Your task to perform on an android device: install app "The Home Depot" Image 0: 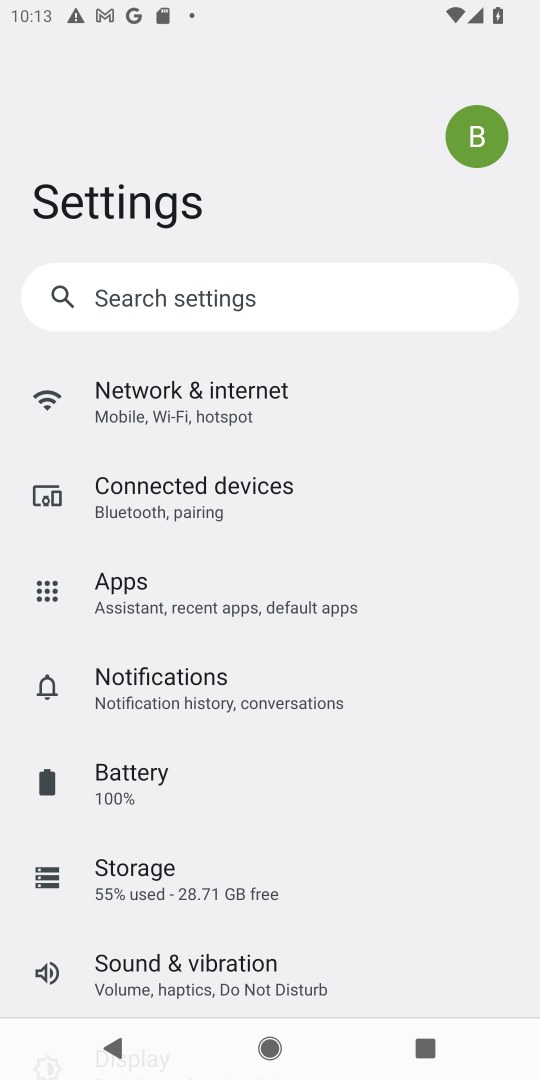
Step 0: press home button
Your task to perform on an android device: install app "The Home Depot" Image 1: 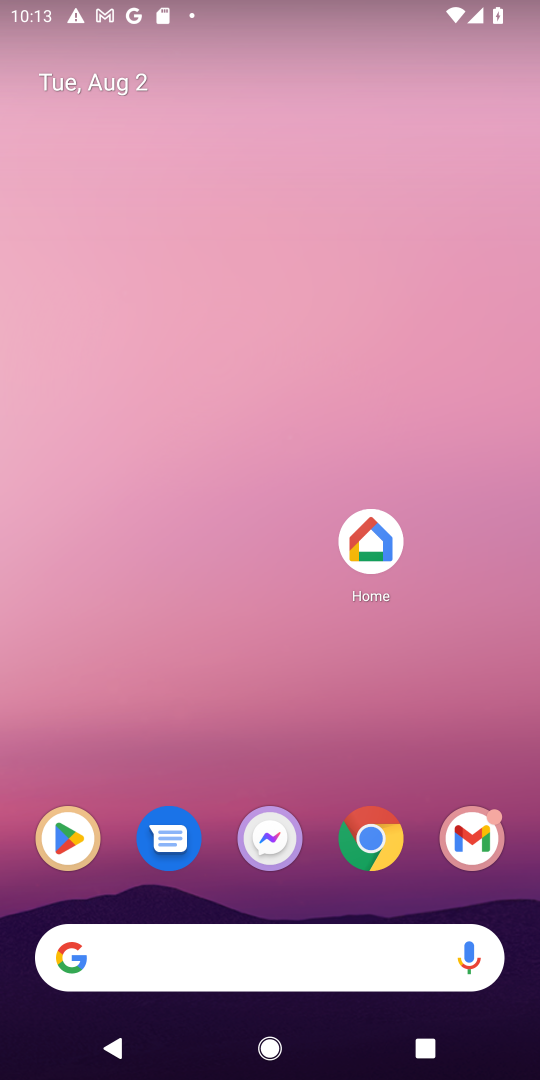
Step 1: drag from (282, 745) to (294, 78)
Your task to perform on an android device: install app "The Home Depot" Image 2: 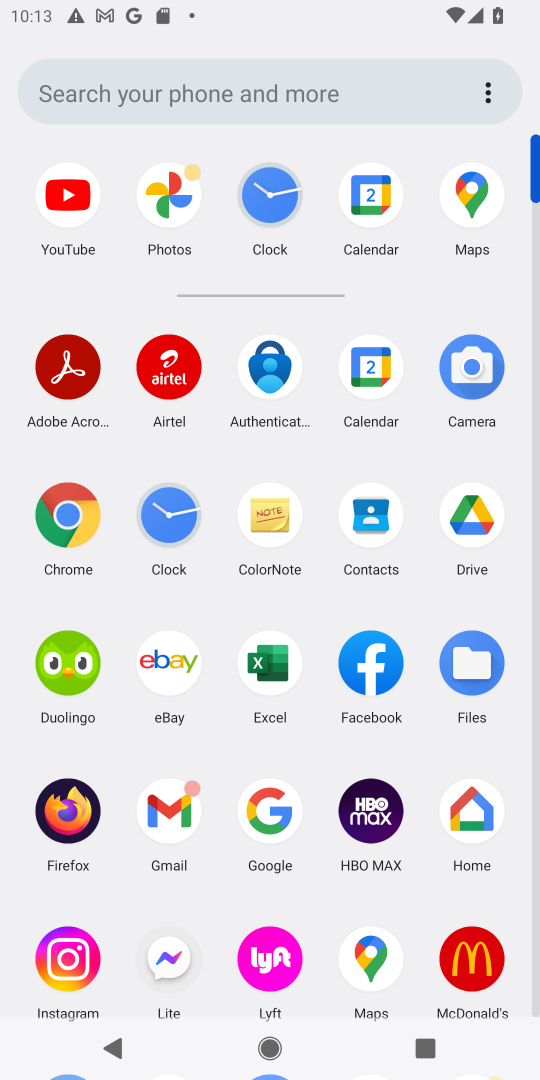
Step 2: drag from (417, 896) to (405, 435)
Your task to perform on an android device: install app "The Home Depot" Image 3: 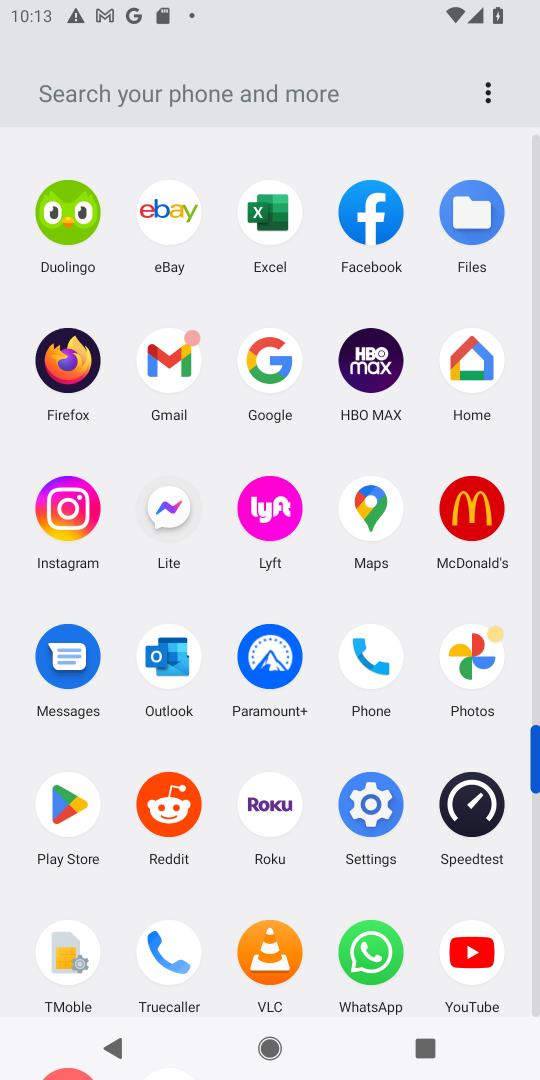
Step 3: click (48, 810)
Your task to perform on an android device: install app "The Home Depot" Image 4: 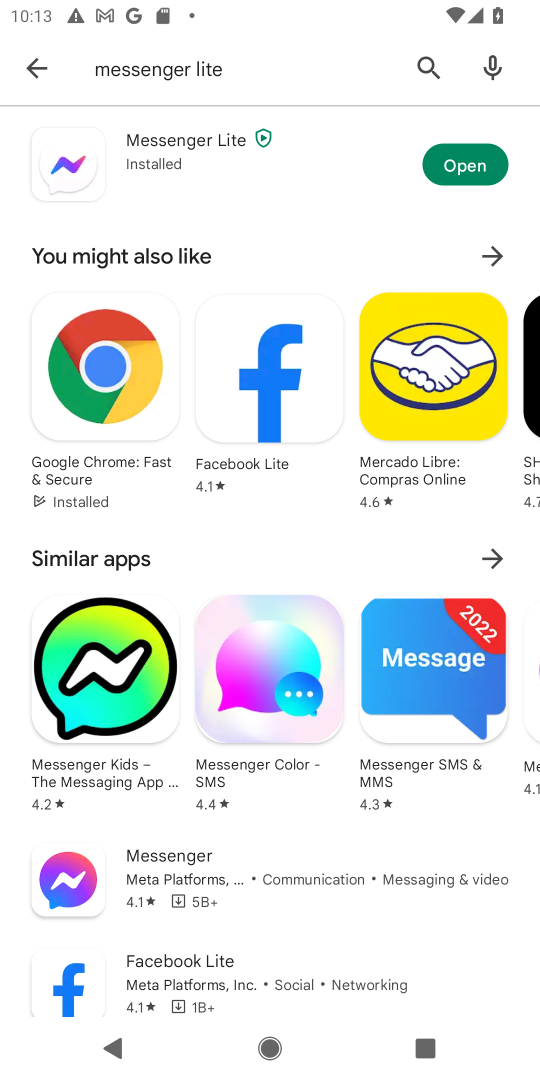
Step 4: click (431, 62)
Your task to perform on an android device: install app "The Home Depot" Image 5: 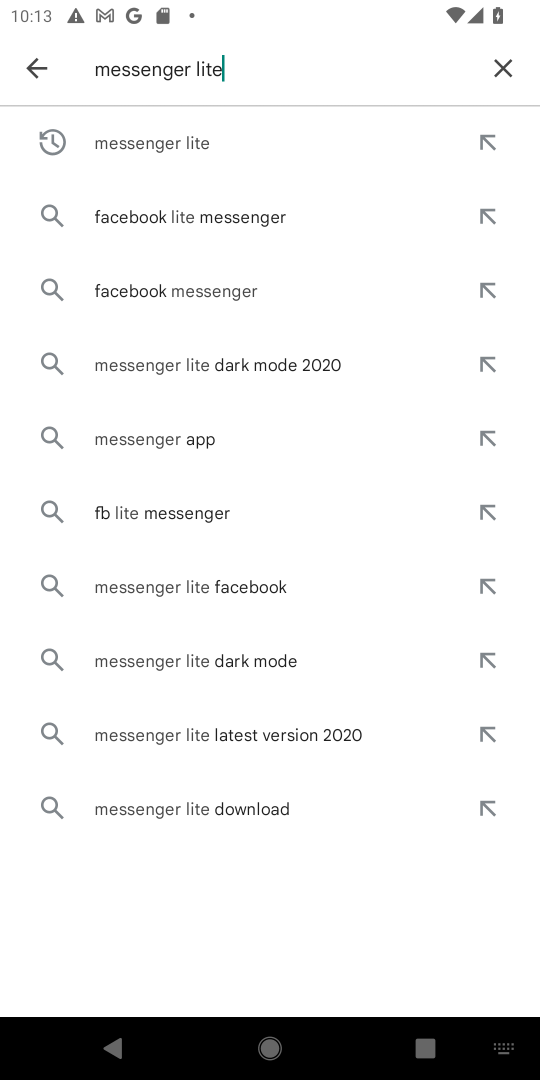
Step 5: click (498, 66)
Your task to perform on an android device: install app "The Home Depot" Image 6: 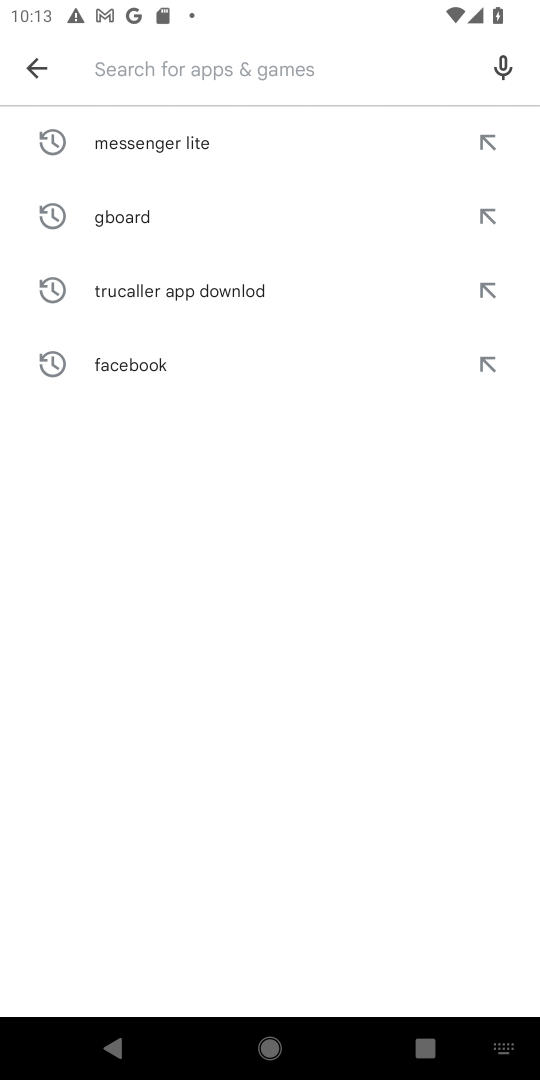
Step 6: click (373, 77)
Your task to perform on an android device: install app "The Home Depot" Image 7: 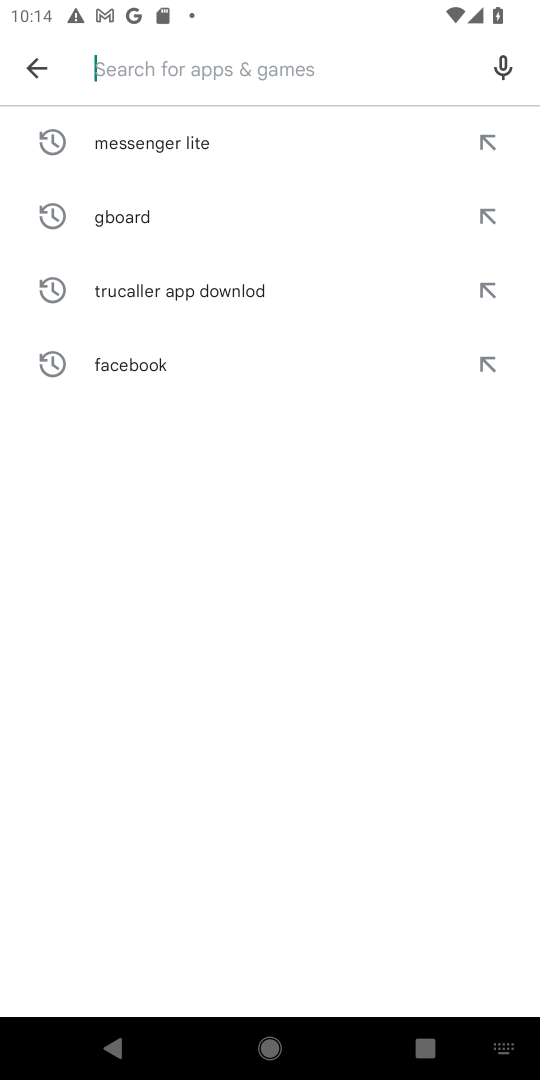
Step 7: type "the home depot"
Your task to perform on an android device: install app "The Home Depot" Image 8: 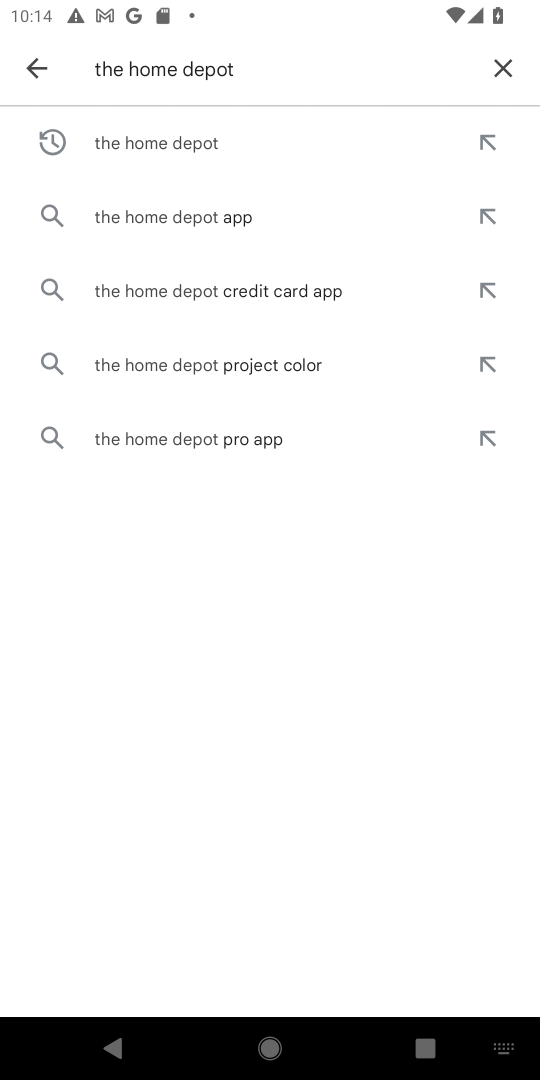
Step 8: click (259, 150)
Your task to perform on an android device: install app "The Home Depot" Image 9: 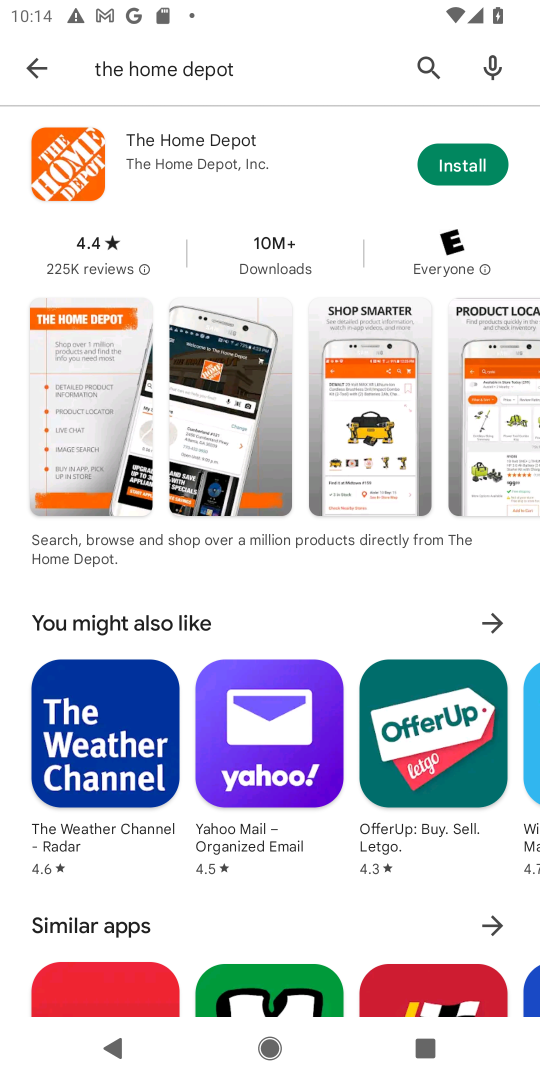
Step 9: click (482, 161)
Your task to perform on an android device: install app "The Home Depot" Image 10: 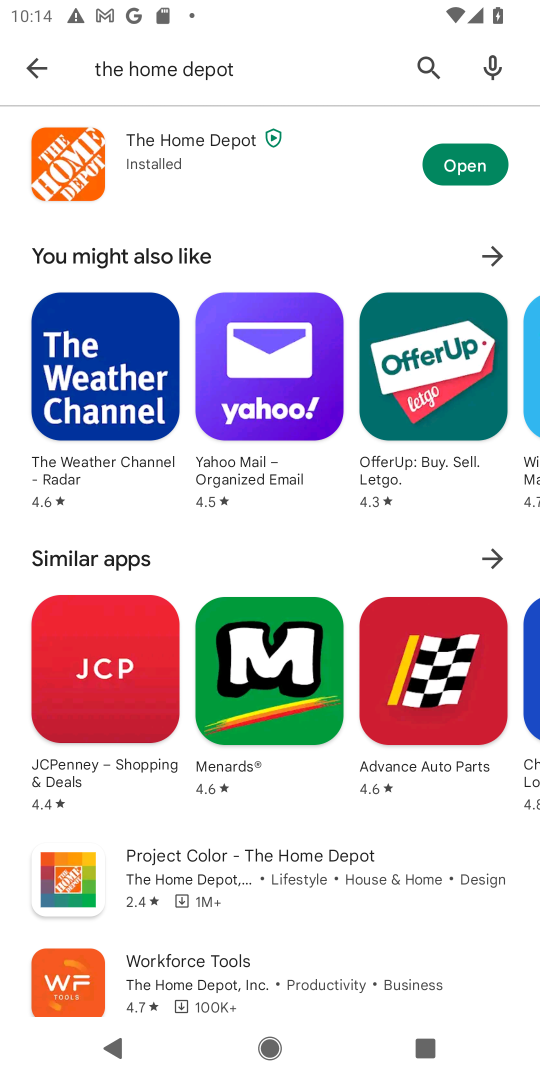
Step 10: task complete